Your task to perform on an android device: manage bookmarks in the chrome app Image 0: 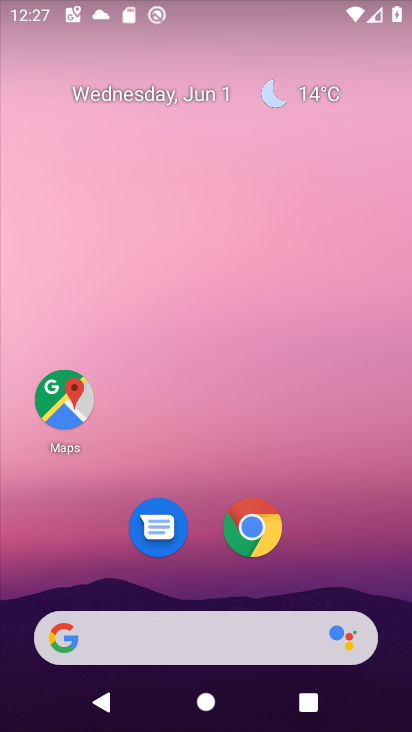
Step 0: click (260, 528)
Your task to perform on an android device: manage bookmarks in the chrome app Image 1: 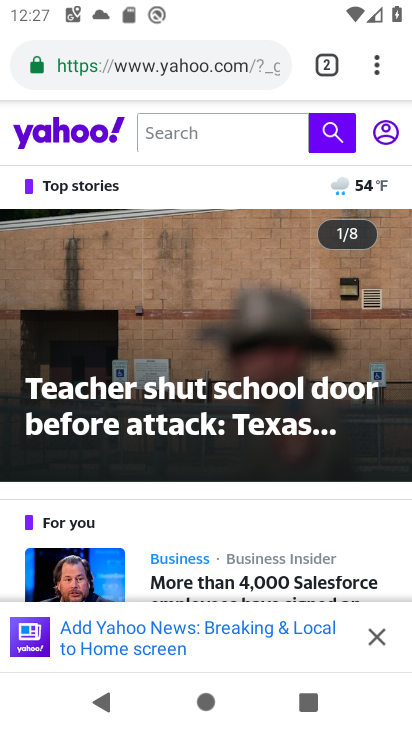
Step 1: task complete